Your task to perform on an android device: open app "Yahoo Mail" Image 0: 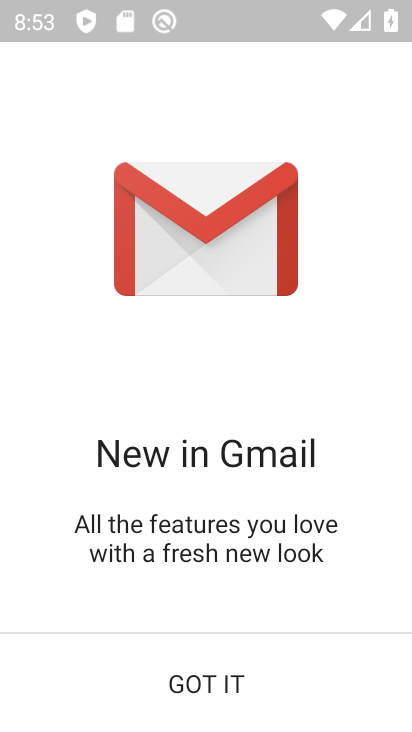
Step 0: press home button
Your task to perform on an android device: open app "Yahoo Mail" Image 1: 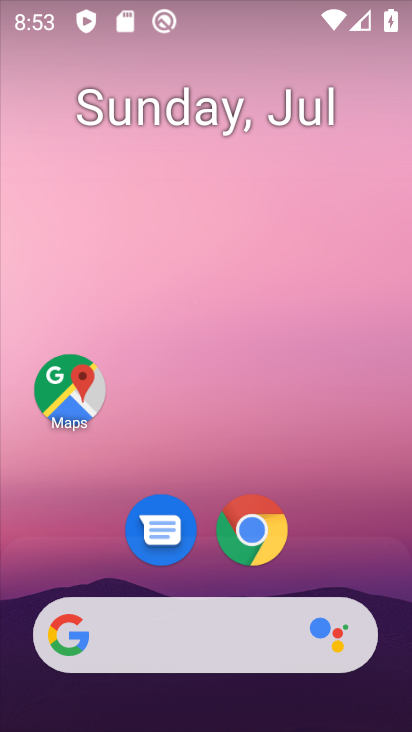
Step 1: drag from (358, 523) to (315, 86)
Your task to perform on an android device: open app "Yahoo Mail" Image 2: 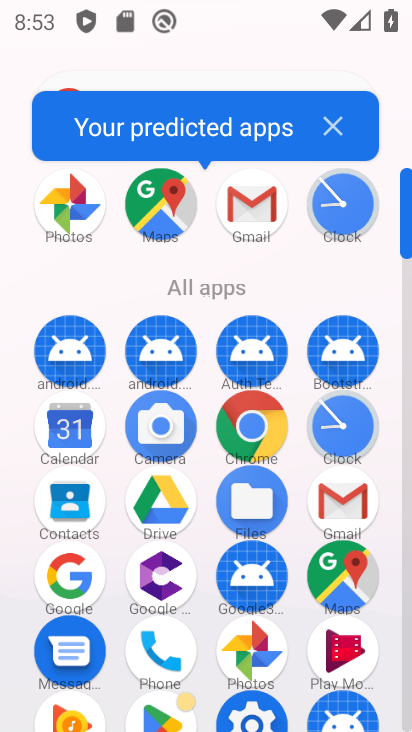
Step 2: drag from (200, 296) to (201, 102)
Your task to perform on an android device: open app "Yahoo Mail" Image 3: 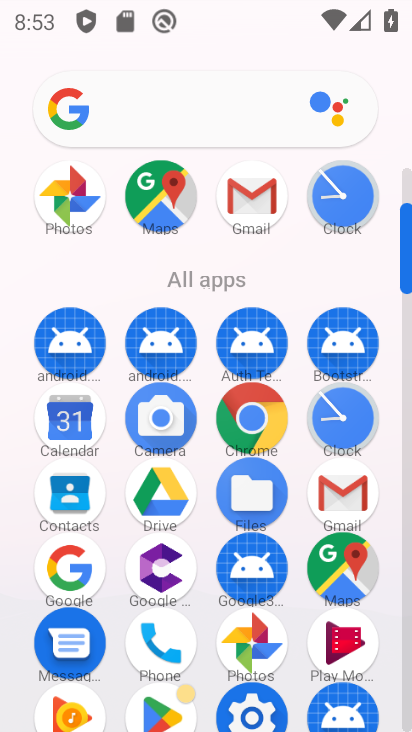
Step 3: click (161, 695)
Your task to perform on an android device: open app "Yahoo Mail" Image 4: 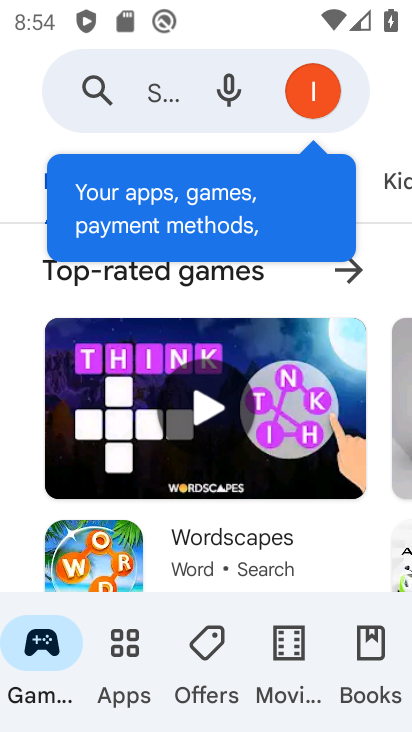
Step 4: click (128, 90)
Your task to perform on an android device: open app "Yahoo Mail" Image 5: 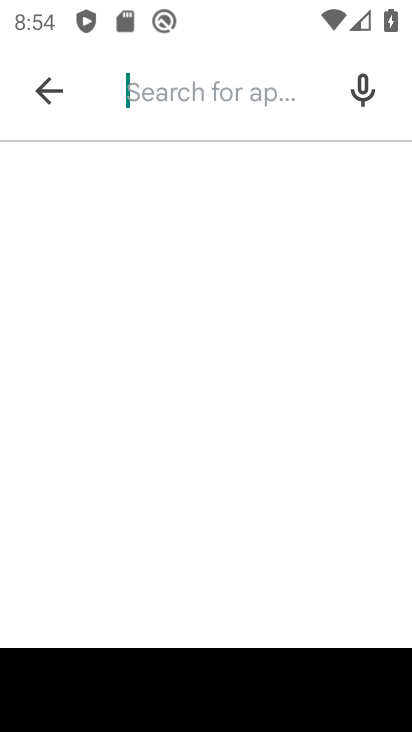
Step 5: type "yahoo mail"
Your task to perform on an android device: open app "Yahoo Mail" Image 6: 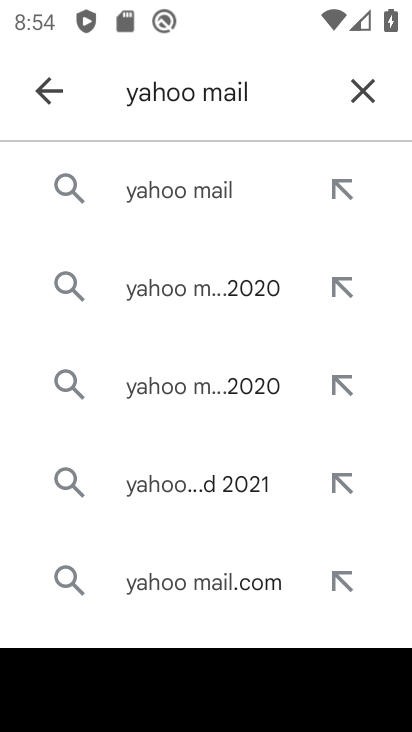
Step 6: click (213, 194)
Your task to perform on an android device: open app "Yahoo Mail" Image 7: 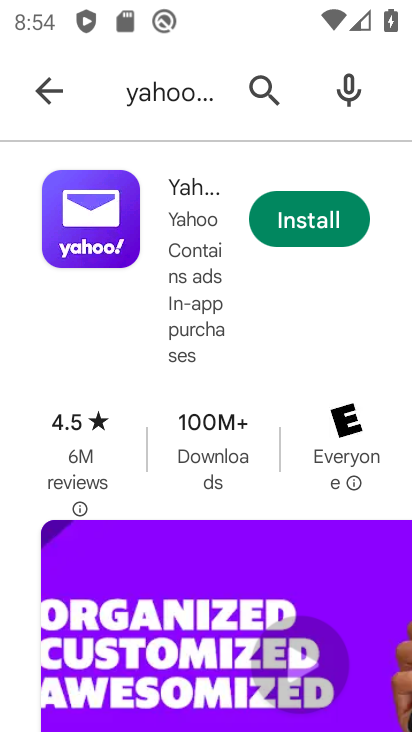
Step 7: click (287, 227)
Your task to perform on an android device: open app "Yahoo Mail" Image 8: 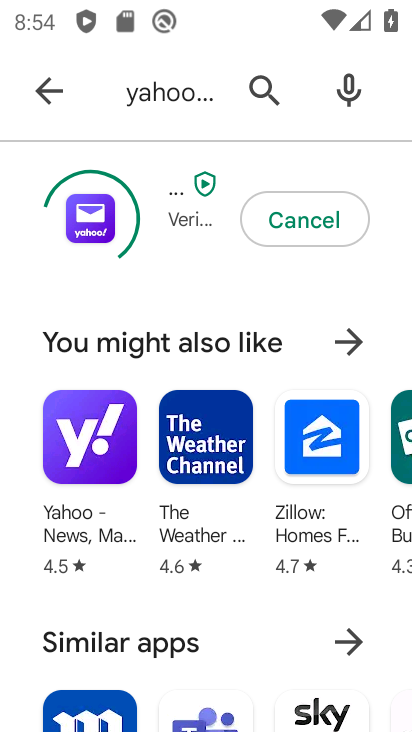
Step 8: click (287, 227)
Your task to perform on an android device: open app "Yahoo Mail" Image 9: 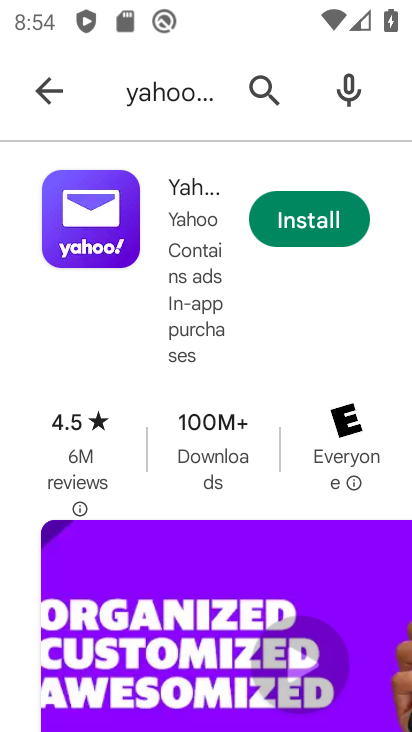
Step 9: task complete